Your task to perform on an android device: find snoozed emails in the gmail app Image 0: 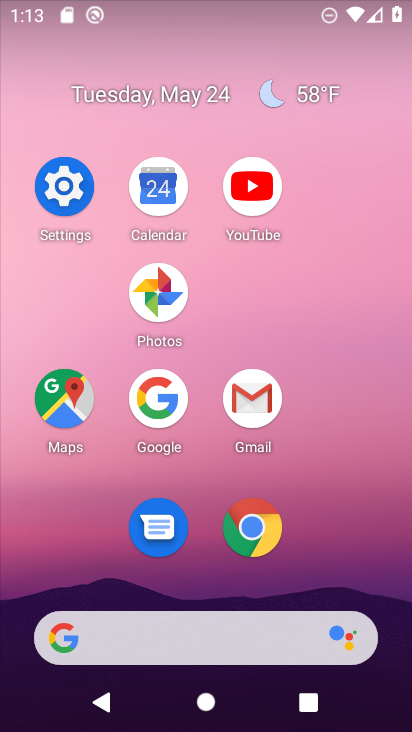
Step 0: click (244, 401)
Your task to perform on an android device: find snoozed emails in the gmail app Image 1: 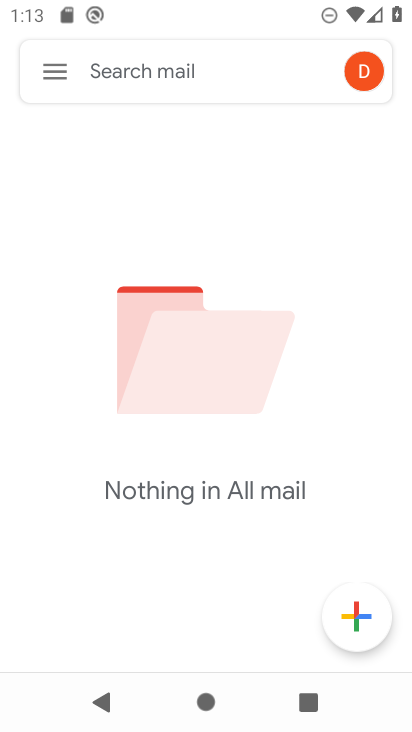
Step 1: click (57, 57)
Your task to perform on an android device: find snoozed emails in the gmail app Image 2: 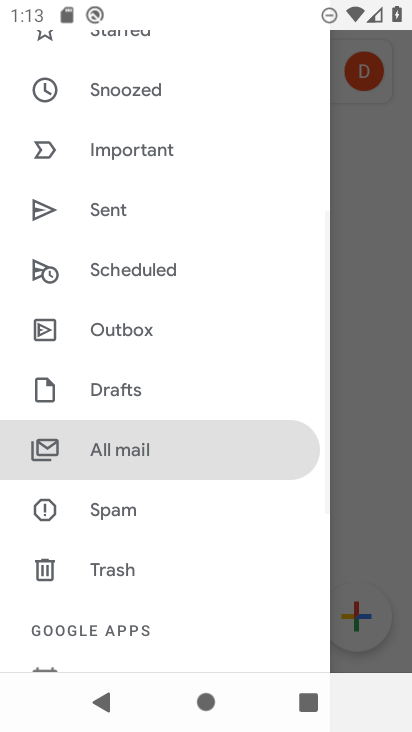
Step 2: drag from (259, 186) to (251, 670)
Your task to perform on an android device: find snoozed emails in the gmail app Image 3: 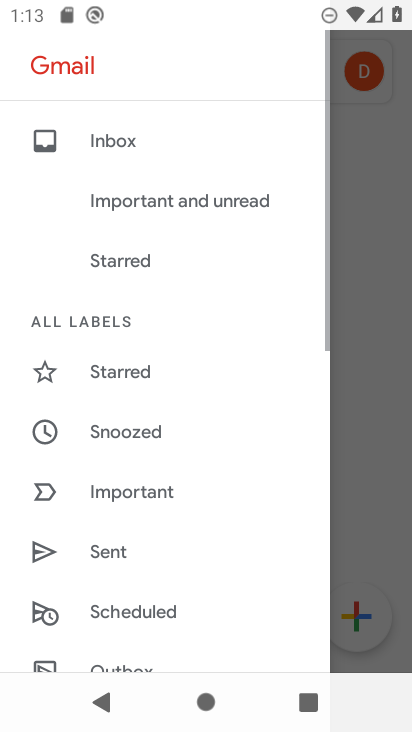
Step 3: click (137, 437)
Your task to perform on an android device: find snoozed emails in the gmail app Image 4: 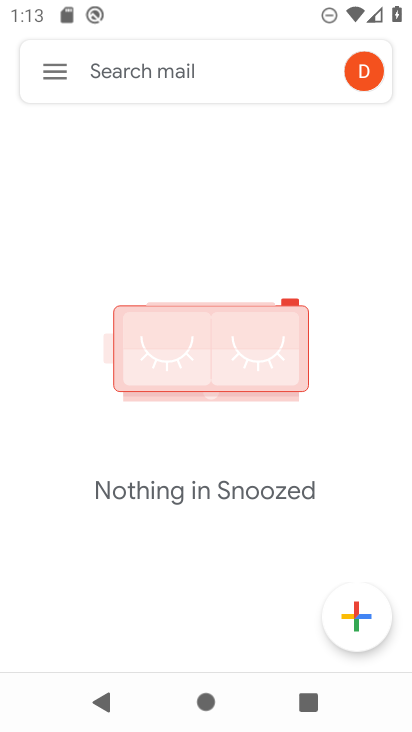
Step 4: task complete